Your task to perform on an android device: change the clock display to show seconds Image 0: 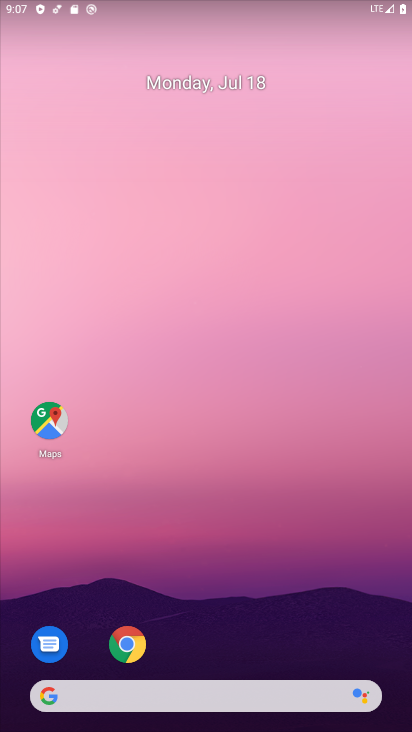
Step 0: drag from (321, 648) to (362, 190)
Your task to perform on an android device: change the clock display to show seconds Image 1: 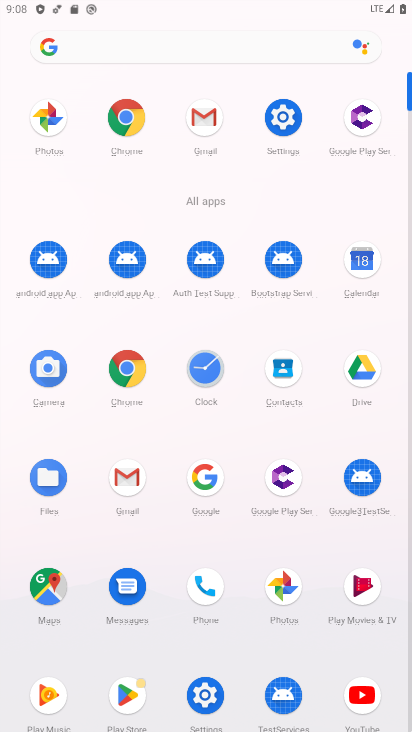
Step 1: click (203, 375)
Your task to perform on an android device: change the clock display to show seconds Image 2: 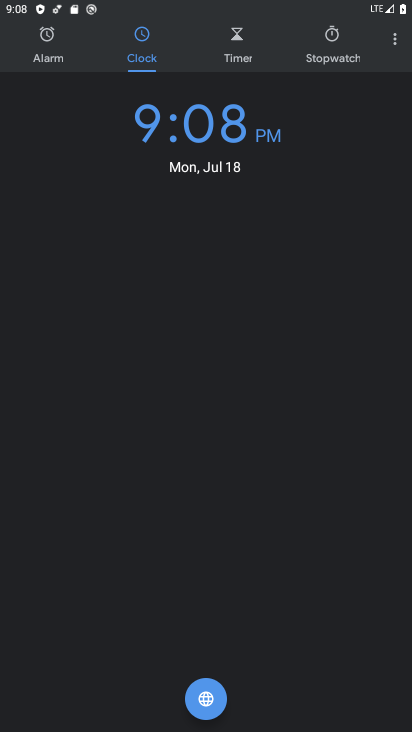
Step 2: click (393, 45)
Your task to perform on an android device: change the clock display to show seconds Image 3: 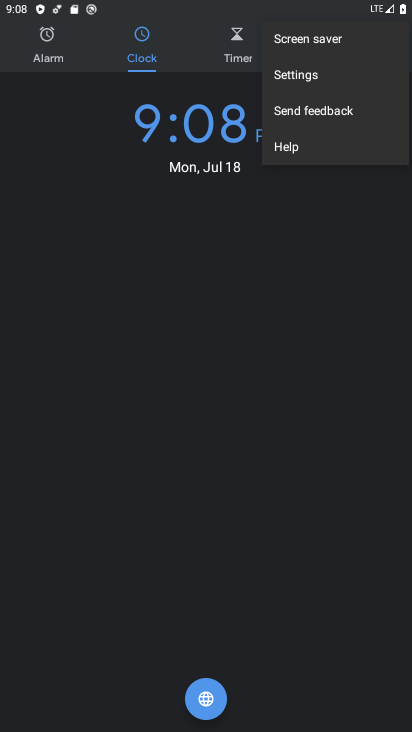
Step 3: click (311, 79)
Your task to perform on an android device: change the clock display to show seconds Image 4: 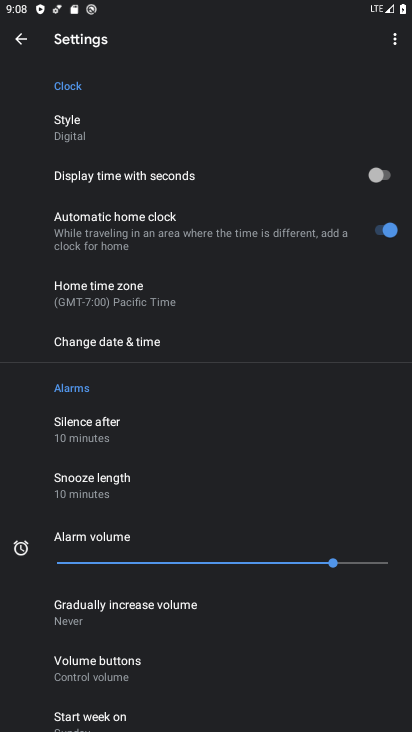
Step 4: drag from (293, 416) to (296, 330)
Your task to perform on an android device: change the clock display to show seconds Image 5: 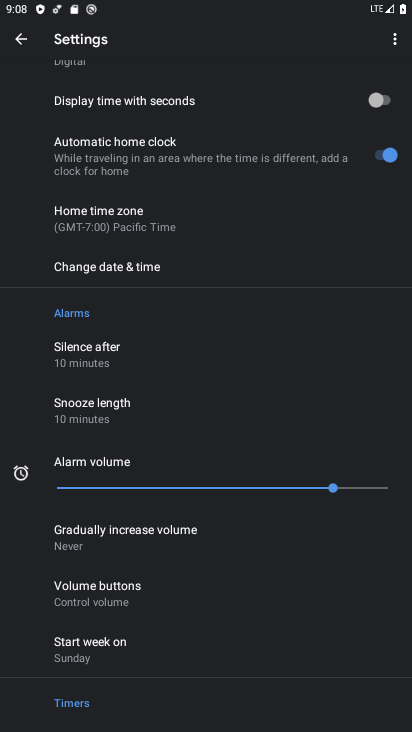
Step 5: drag from (271, 529) to (287, 425)
Your task to perform on an android device: change the clock display to show seconds Image 6: 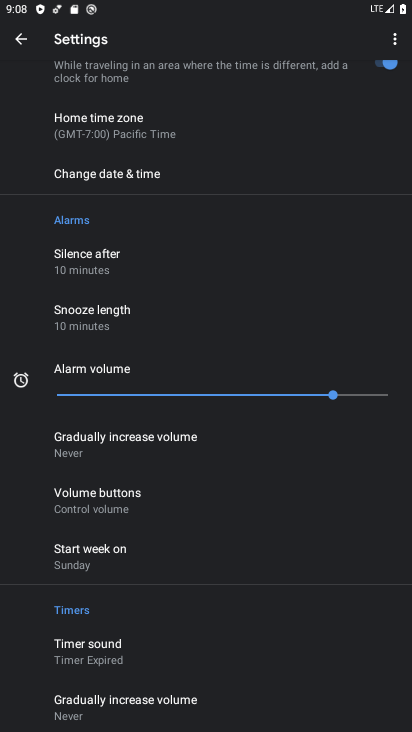
Step 6: drag from (285, 511) to (290, 453)
Your task to perform on an android device: change the clock display to show seconds Image 7: 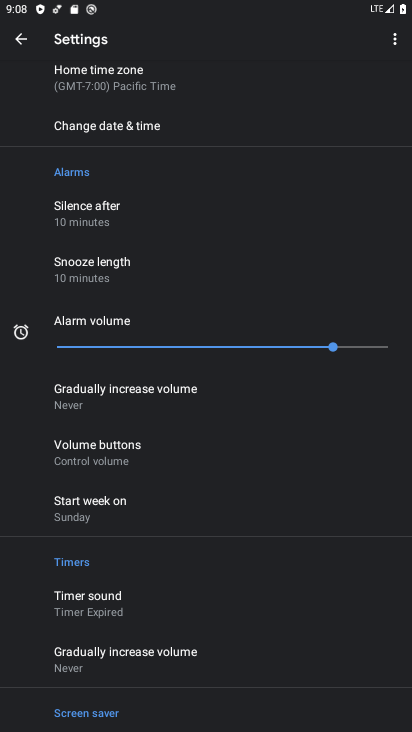
Step 7: drag from (289, 509) to (288, 440)
Your task to perform on an android device: change the clock display to show seconds Image 8: 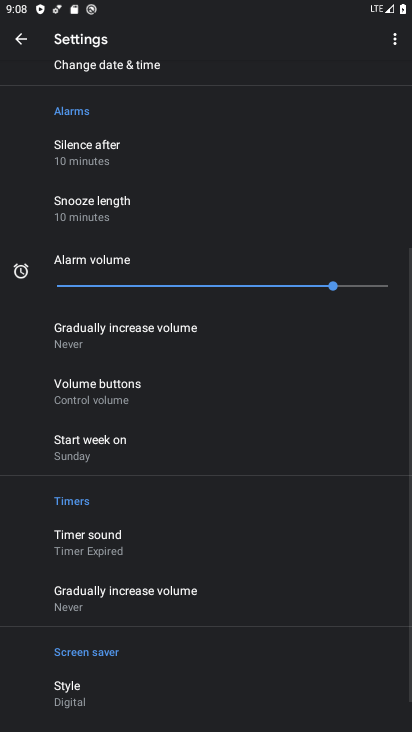
Step 8: drag from (281, 529) to (281, 439)
Your task to perform on an android device: change the clock display to show seconds Image 9: 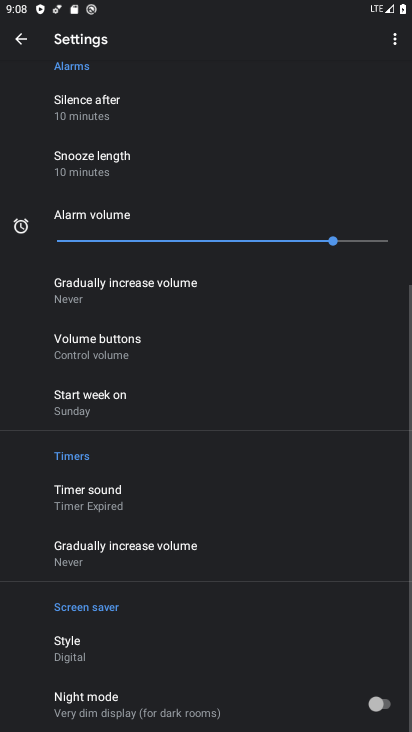
Step 9: drag from (279, 305) to (279, 398)
Your task to perform on an android device: change the clock display to show seconds Image 10: 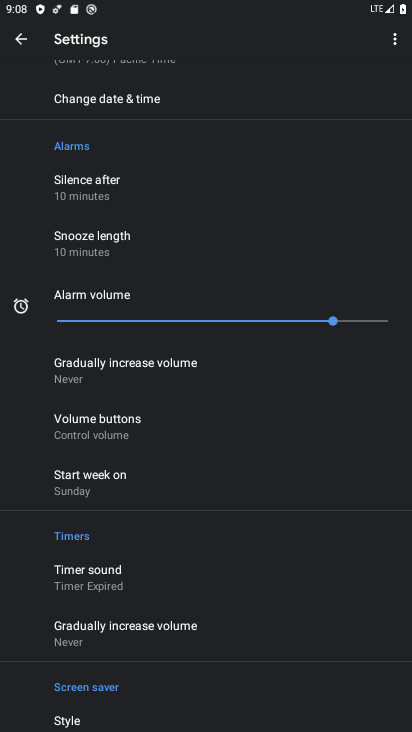
Step 10: drag from (293, 258) to (294, 354)
Your task to perform on an android device: change the clock display to show seconds Image 11: 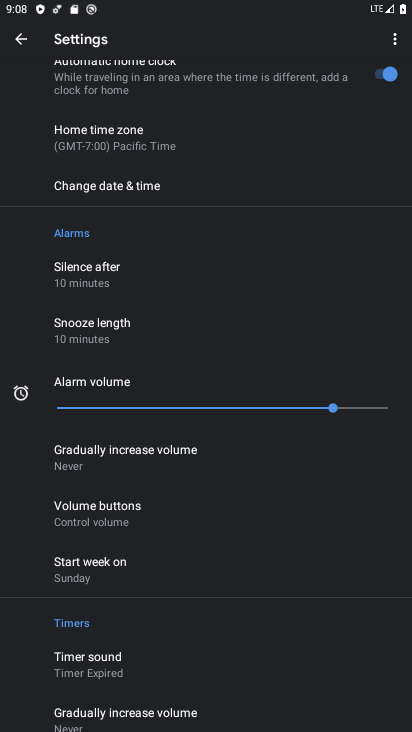
Step 11: drag from (315, 268) to (302, 355)
Your task to perform on an android device: change the clock display to show seconds Image 12: 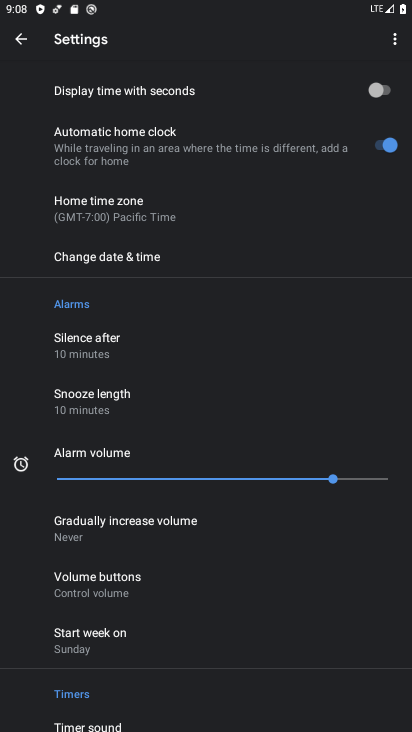
Step 12: drag from (317, 270) to (325, 395)
Your task to perform on an android device: change the clock display to show seconds Image 13: 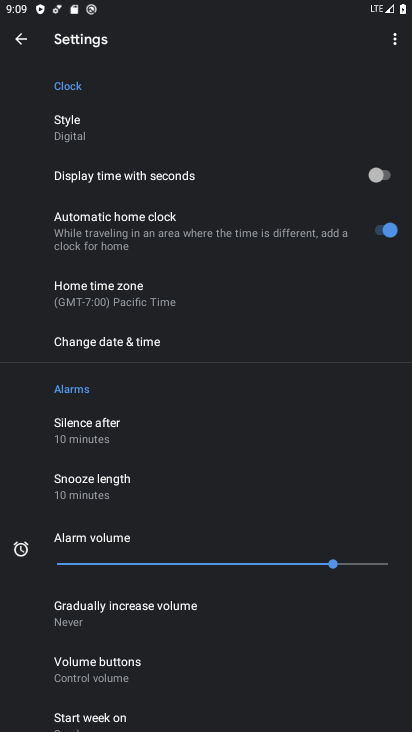
Step 13: click (378, 175)
Your task to perform on an android device: change the clock display to show seconds Image 14: 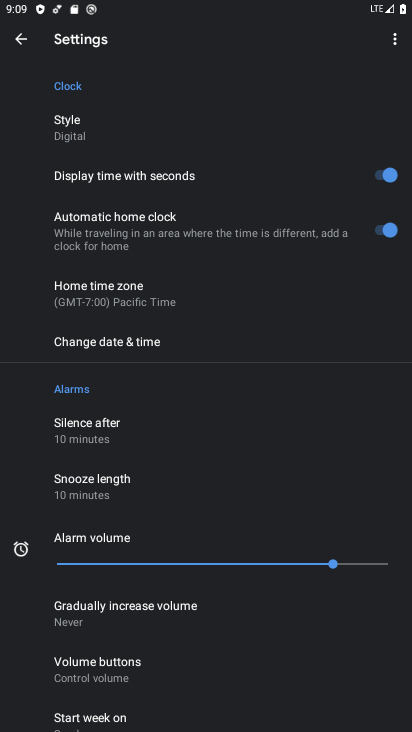
Step 14: task complete